Your task to perform on an android device: Open the Play Movies app and select the watchlist tab. Image 0: 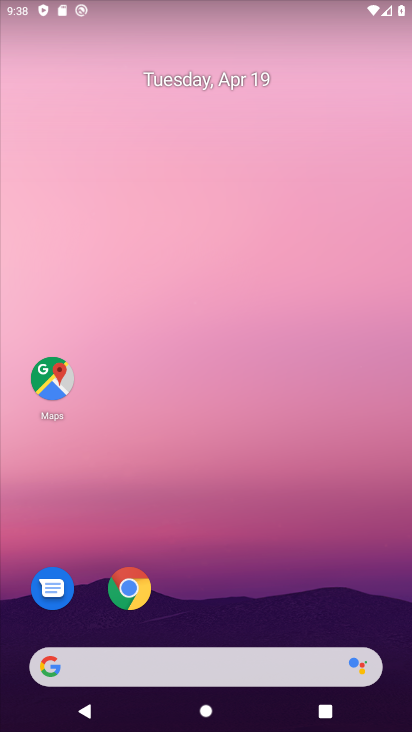
Step 0: drag from (254, 548) to (353, 41)
Your task to perform on an android device: Open the Play Movies app and select the watchlist tab. Image 1: 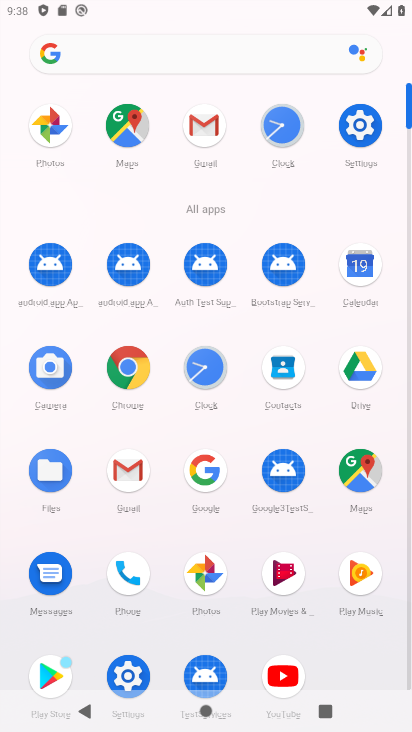
Step 1: click (273, 576)
Your task to perform on an android device: Open the Play Movies app and select the watchlist tab. Image 2: 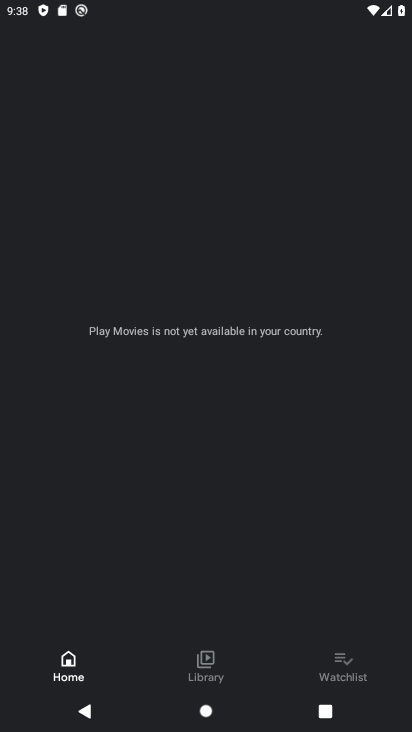
Step 2: click (346, 663)
Your task to perform on an android device: Open the Play Movies app and select the watchlist tab. Image 3: 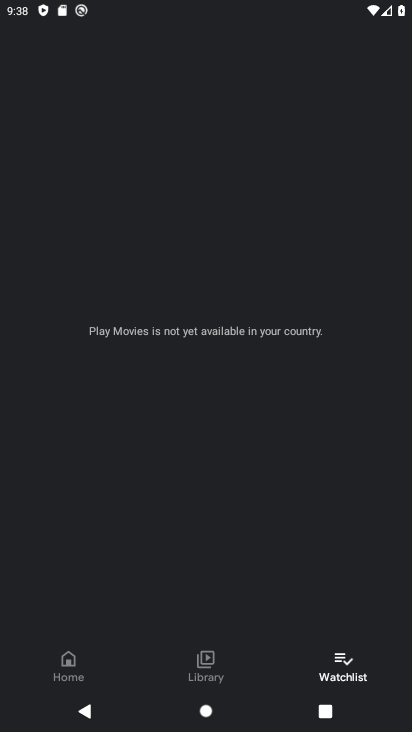
Step 3: task complete